Your task to perform on an android device: change text size in settings app Image 0: 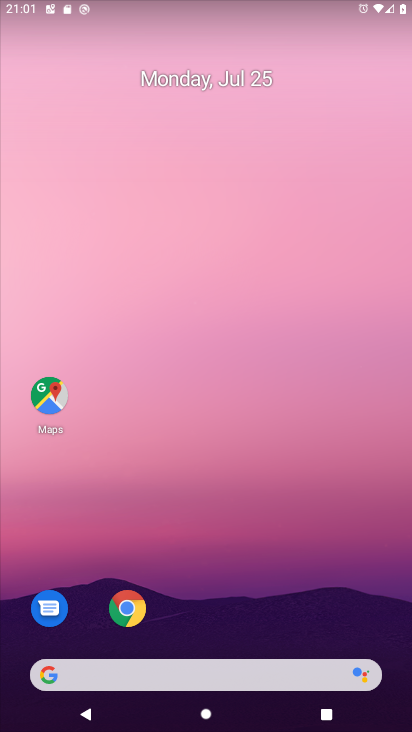
Step 0: drag from (240, 605) to (274, 205)
Your task to perform on an android device: change text size in settings app Image 1: 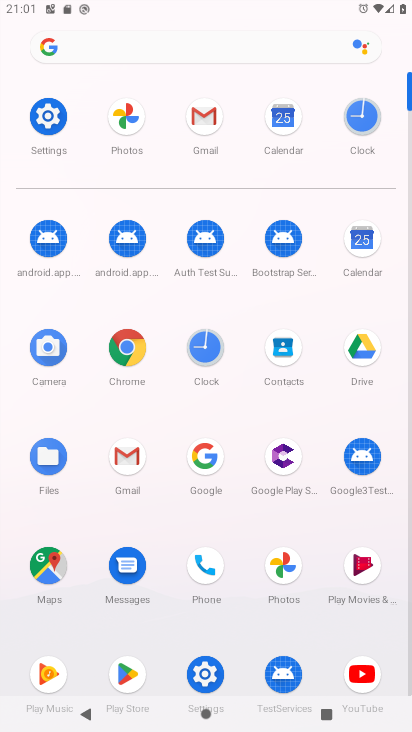
Step 1: click (58, 113)
Your task to perform on an android device: change text size in settings app Image 2: 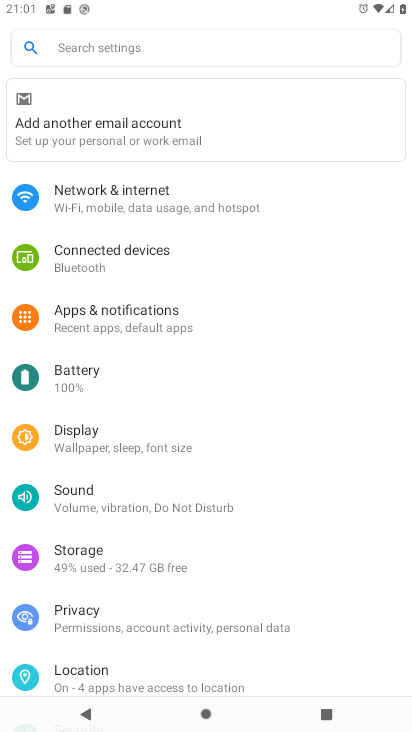
Step 2: click (181, 443)
Your task to perform on an android device: change text size in settings app Image 3: 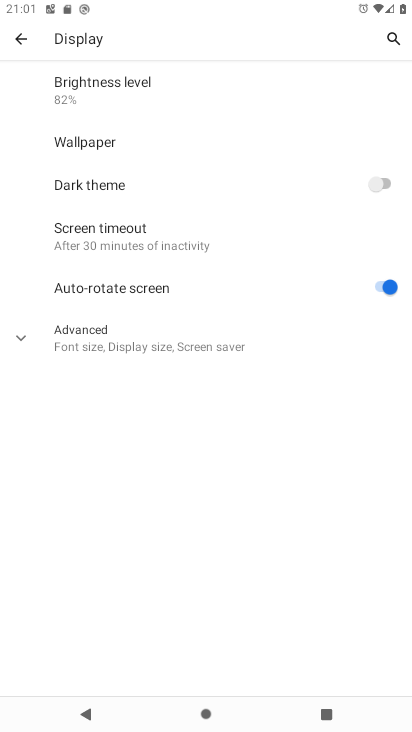
Step 3: click (262, 358)
Your task to perform on an android device: change text size in settings app Image 4: 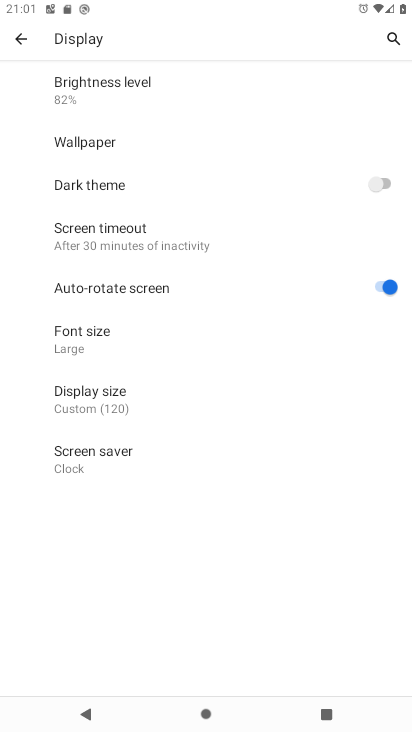
Step 4: click (199, 341)
Your task to perform on an android device: change text size in settings app Image 5: 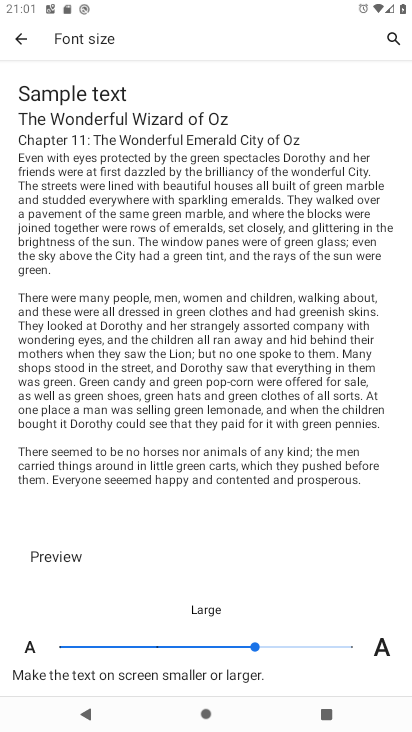
Step 5: click (348, 647)
Your task to perform on an android device: change text size in settings app Image 6: 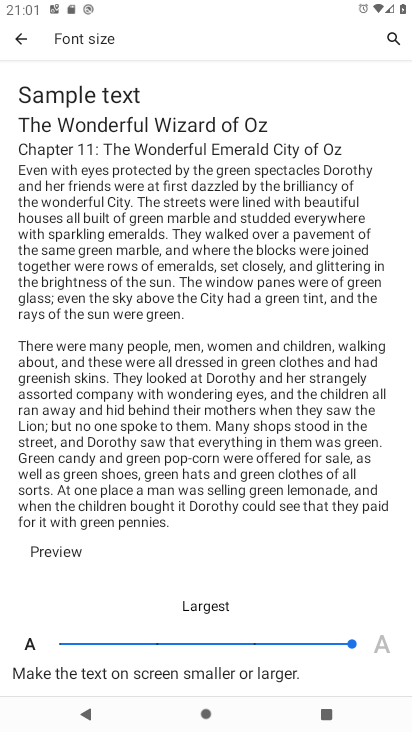
Step 6: task complete